Your task to perform on an android device: Open Google Chrome Image 0: 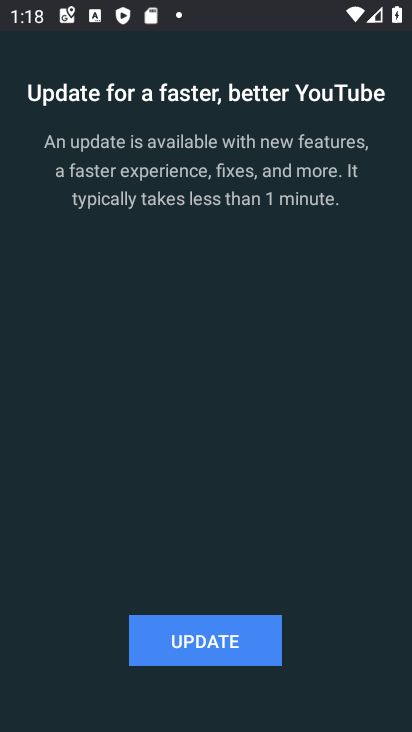
Step 0: press home button
Your task to perform on an android device: Open Google Chrome Image 1: 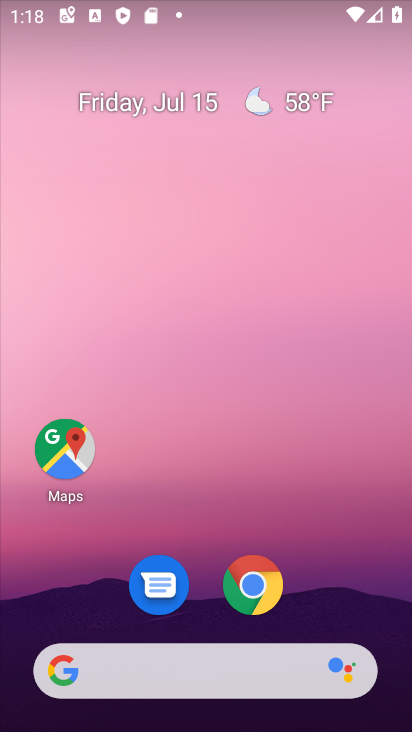
Step 1: click (258, 579)
Your task to perform on an android device: Open Google Chrome Image 2: 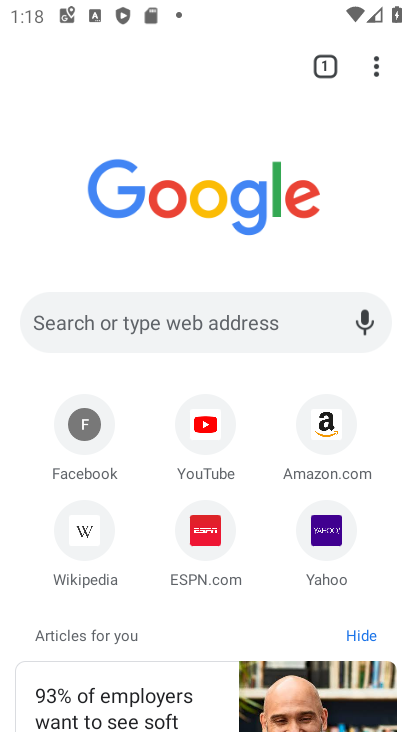
Step 2: task complete